Your task to perform on an android device: Open internet settings Image 0: 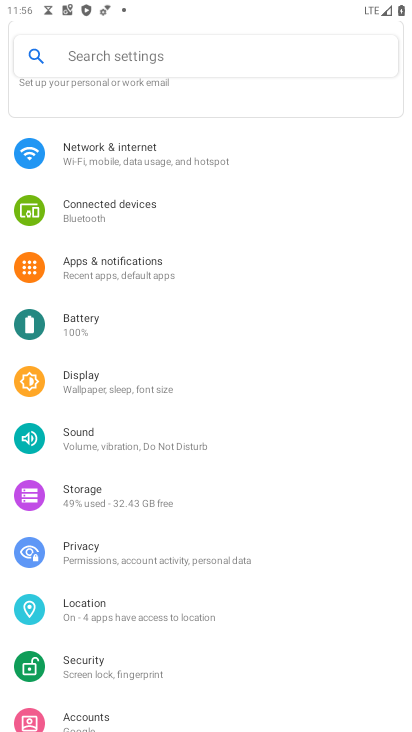
Step 0: click (145, 164)
Your task to perform on an android device: Open internet settings Image 1: 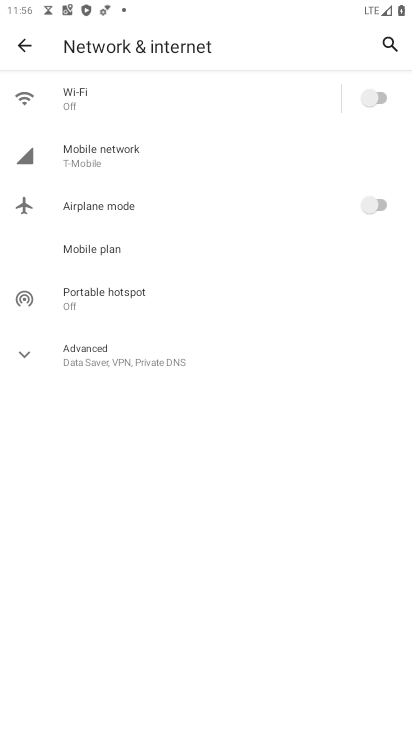
Step 1: click (86, 103)
Your task to perform on an android device: Open internet settings Image 2: 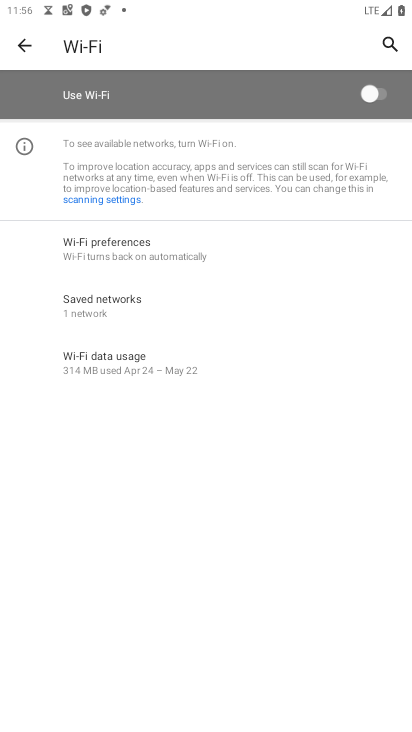
Step 2: task complete